Your task to perform on an android device: see tabs open on other devices in the chrome app Image 0: 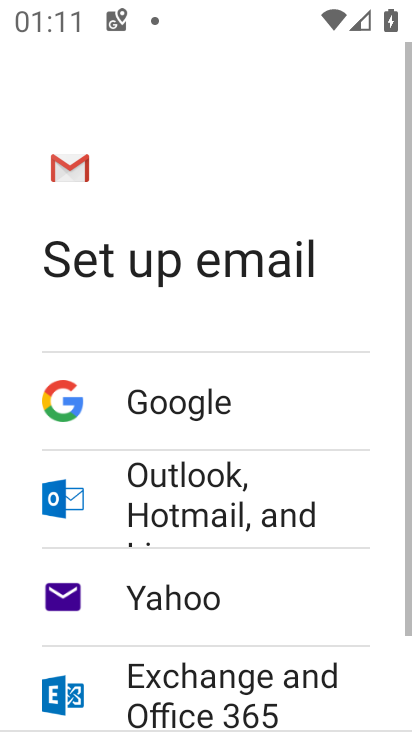
Step 0: press home button
Your task to perform on an android device: see tabs open on other devices in the chrome app Image 1: 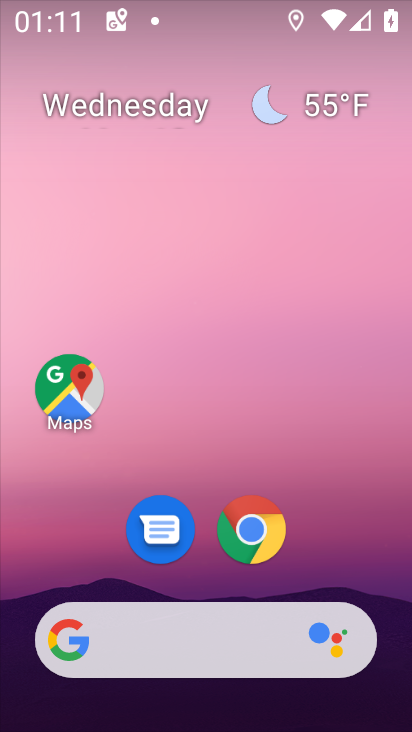
Step 1: click (256, 550)
Your task to perform on an android device: see tabs open on other devices in the chrome app Image 2: 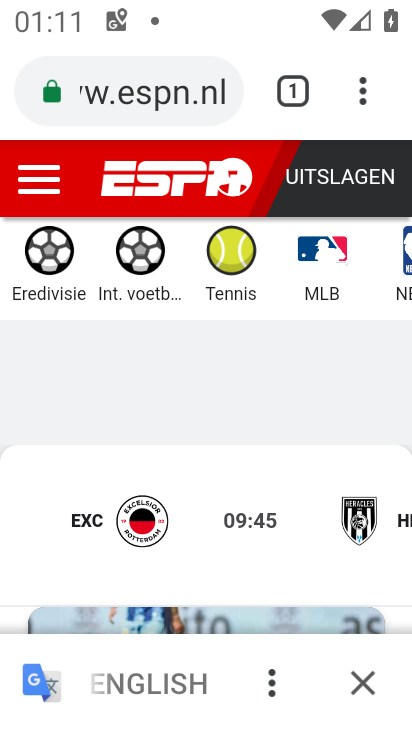
Step 2: click (368, 101)
Your task to perform on an android device: see tabs open on other devices in the chrome app Image 3: 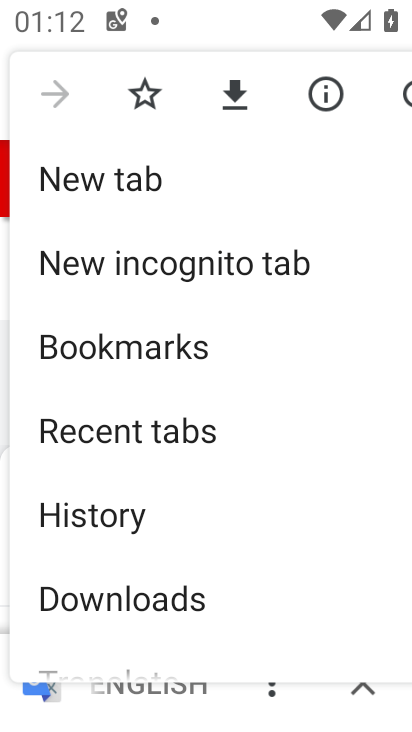
Step 3: click (139, 432)
Your task to perform on an android device: see tabs open on other devices in the chrome app Image 4: 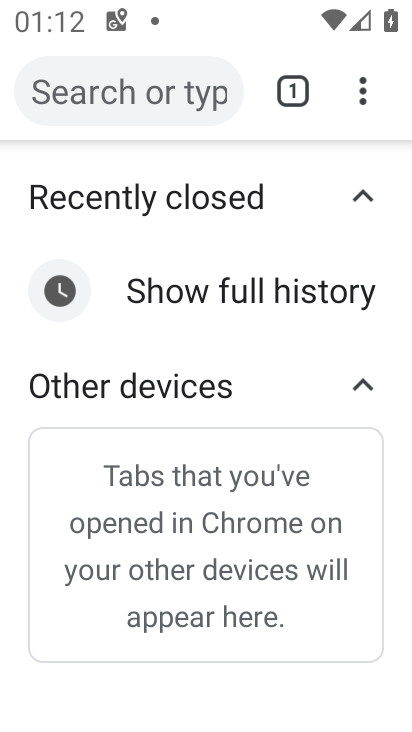
Step 4: task complete